Your task to perform on an android device: toggle notifications settings in the gmail app Image 0: 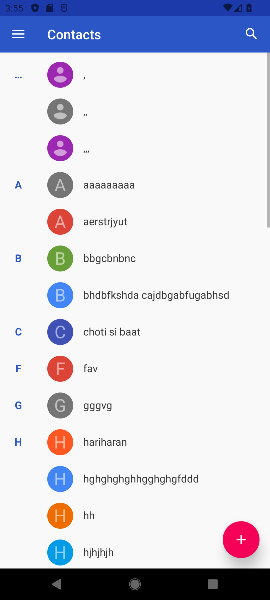
Step 0: press home button
Your task to perform on an android device: toggle notifications settings in the gmail app Image 1: 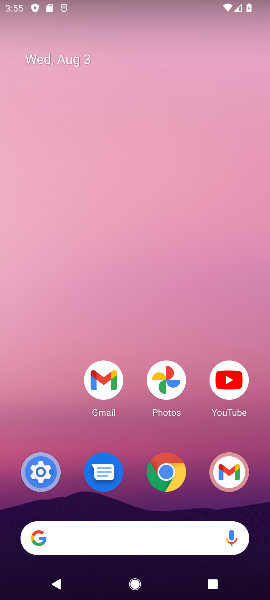
Step 1: drag from (203, 500) to (105, 48)
Your task to perform on an android device: toggle notifications settings in the gmail app Image 2: 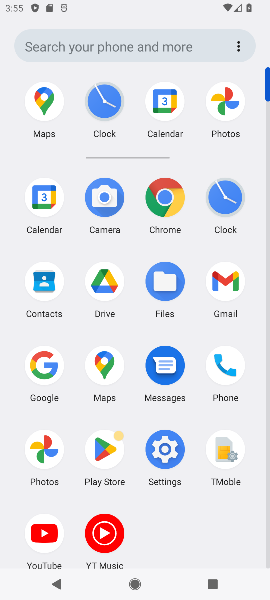
Step 2: click (221, 287)
Your task to perform on an android device: toggle notifications settings in the gmail app Image 3: 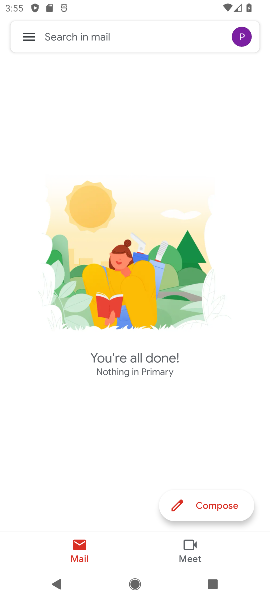
Step 3: click (23, 44)
Your task to perform on an android device: toggle notifications settings in the gmail app Image 4: 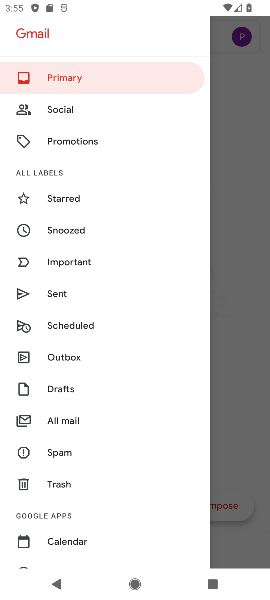
Step 4: drag from (92, 536) to (104, 132)
Your task to perform on an android device: toggle notifications settings in the gmail app Image 5: 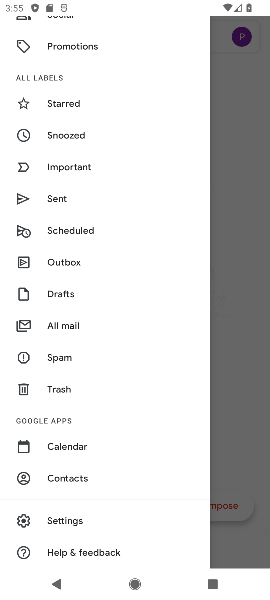
Step 5: click (69, 523)
Your task to perform on an android device: toggle notifications settings in the gmail app Image 6: 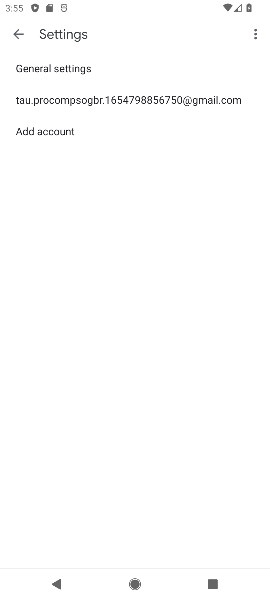
Step 6: click (89, 103)
Your task to perform on an android device: toggle notifications settings in the gmail app Image 7: 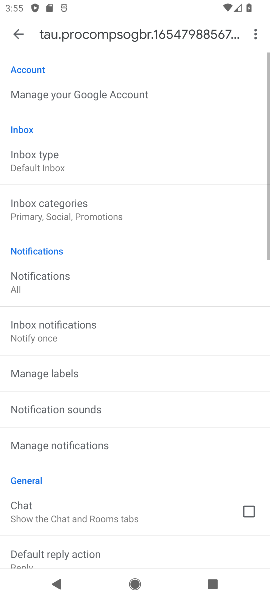
Step 7: click (51, 288)
Your task to perform on an android device: toggle notifications settings in the gmail app Image 8: 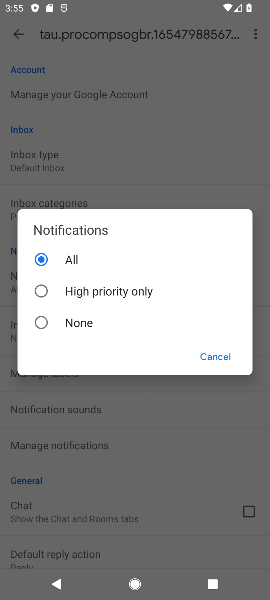
Step 8: click (35, 298)
Your task to perform on an android device: toggle notifications settings in the gmail app Image 9: 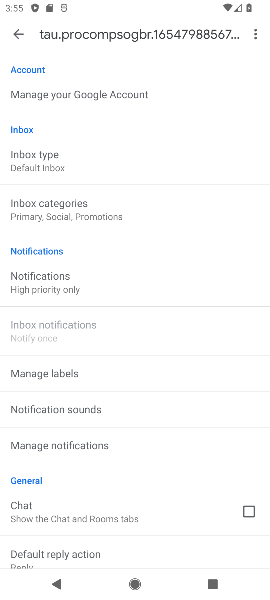
Step 9: task complete